Your task to perform on an android device: Search for "bose quietcomfort 35" on costco, select the first entry, and add it to the cart. Image 0: 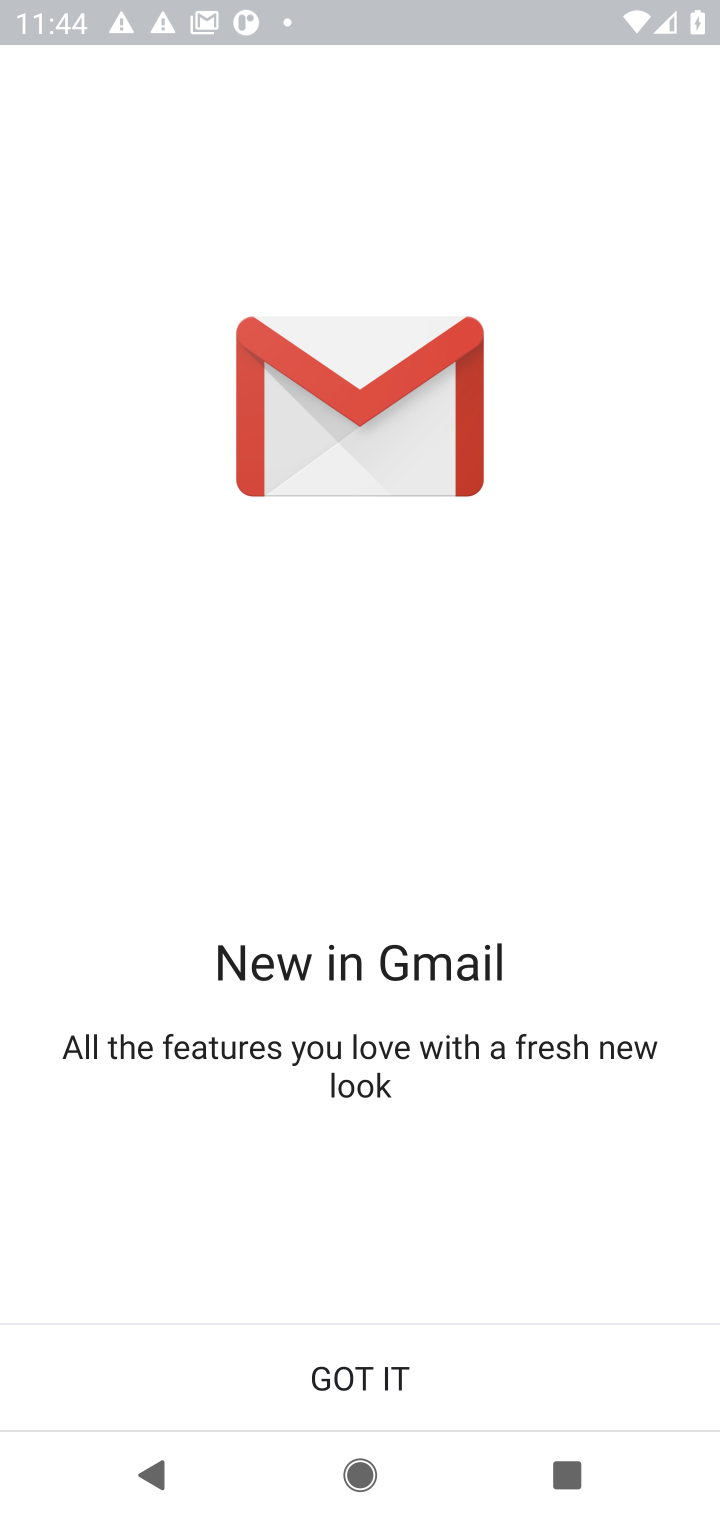
Step 0: press home button
Your task to perform on an android device: Search for "bose quietcomfort 35" on costco, select the first entry, and add it to the cart. Image 1: 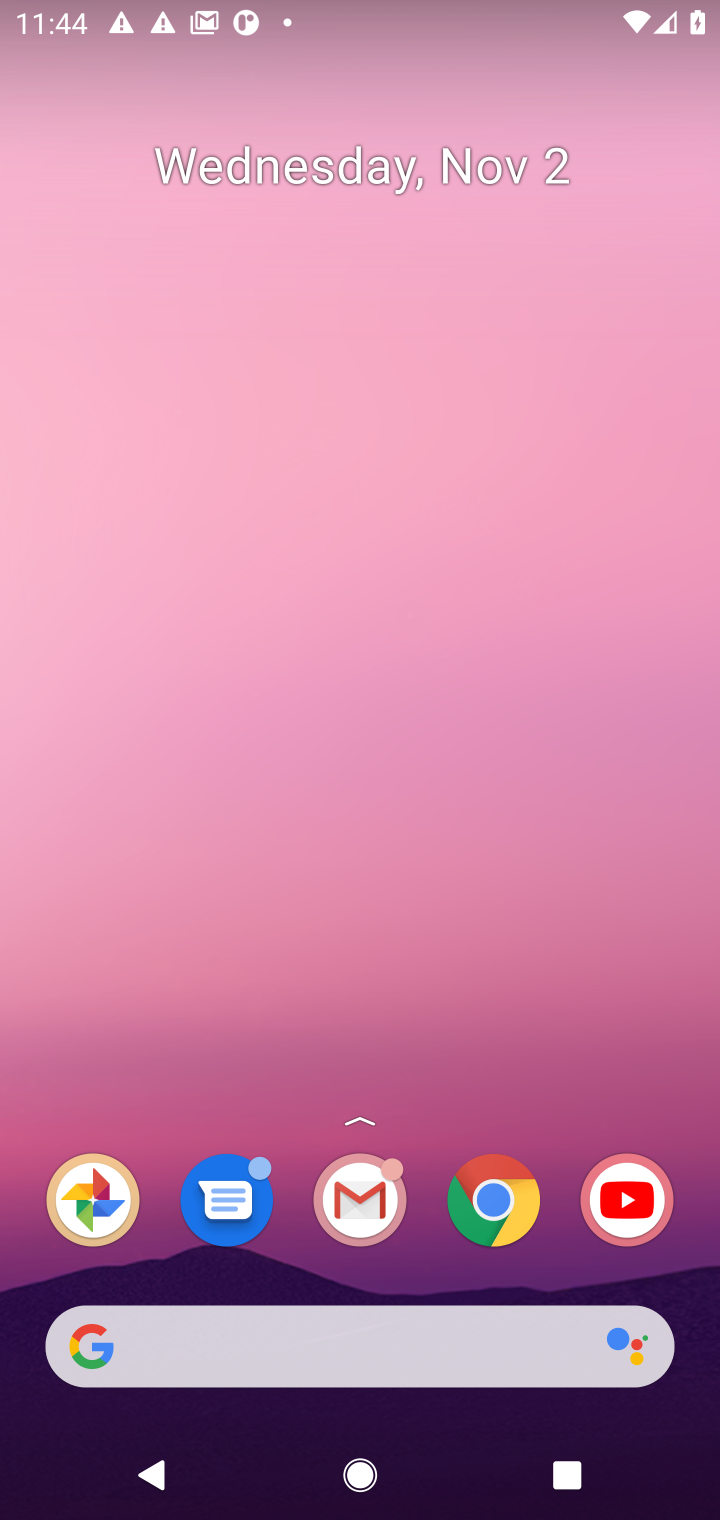
Step 1: click (494, 1194)
Your task to perform on an android device: Search for "bose quietcomfort 35" on costco, select the first entry, and add it to the cart. Image 2: 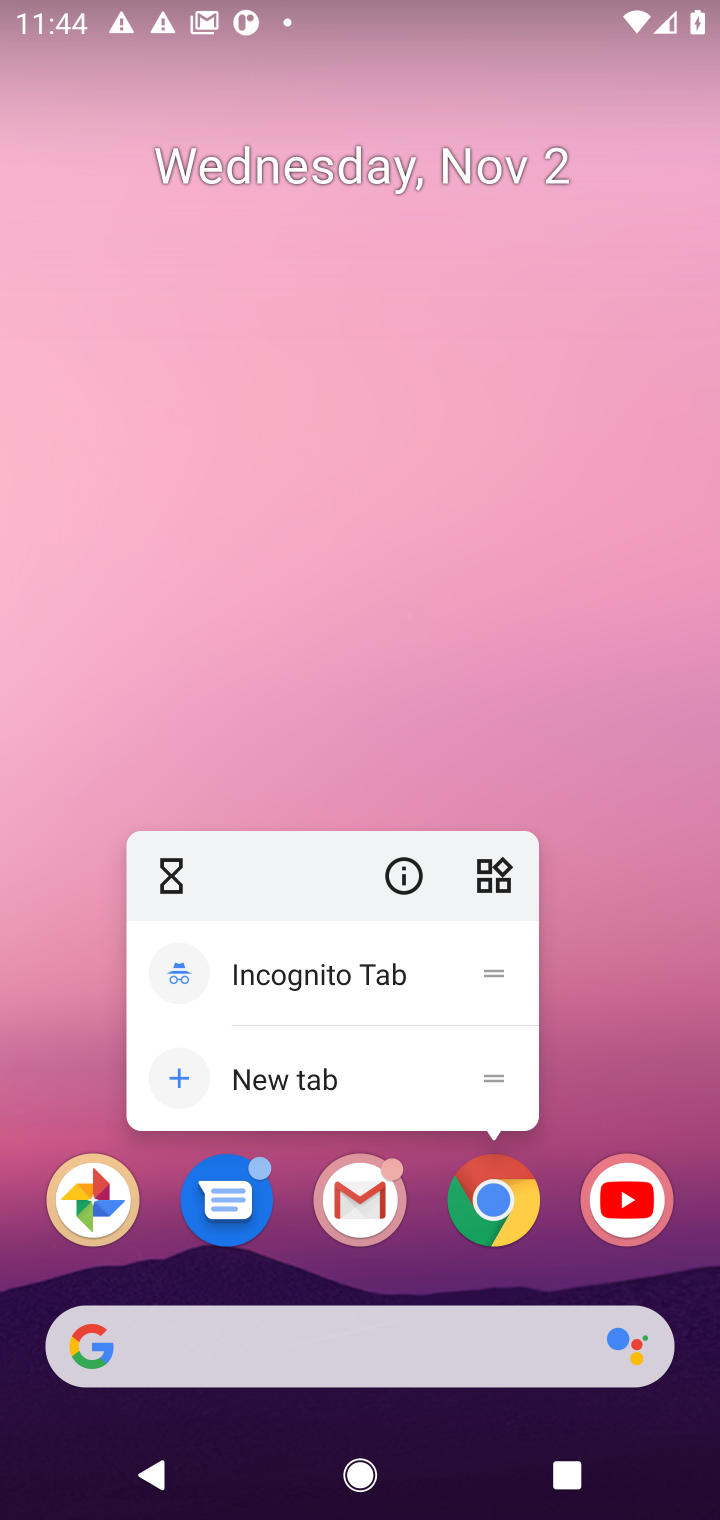
Step 2: click (494, 1194)
Your task to perform on an android device: Search for "bose quietcomfort 35" on costco, select the first entry, and add it to the cart. Image 3: 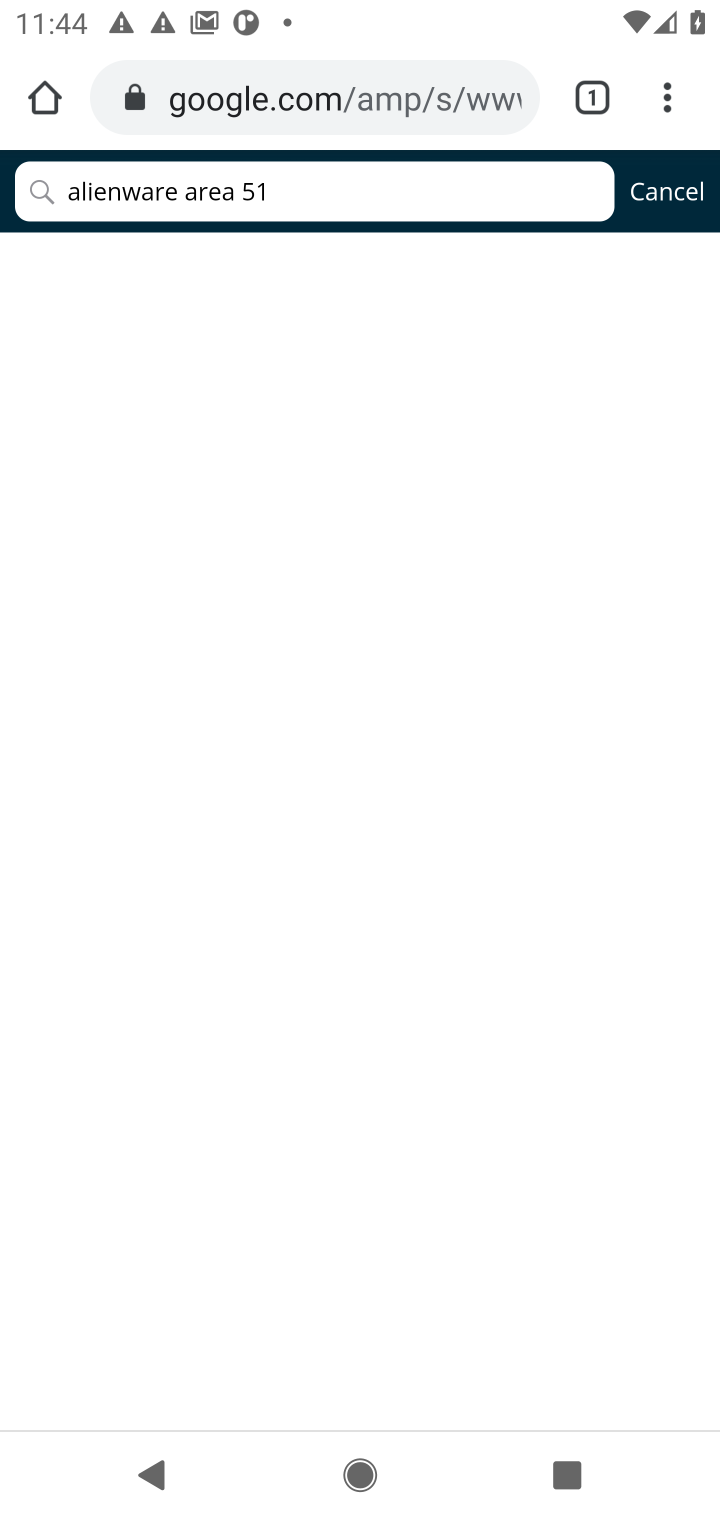
Step 3: click (403, 96)
Your task to perform on an android device: Search for "bose quietcomfort 35" on costco, select the first entry, and add it to the cart. Image 4: 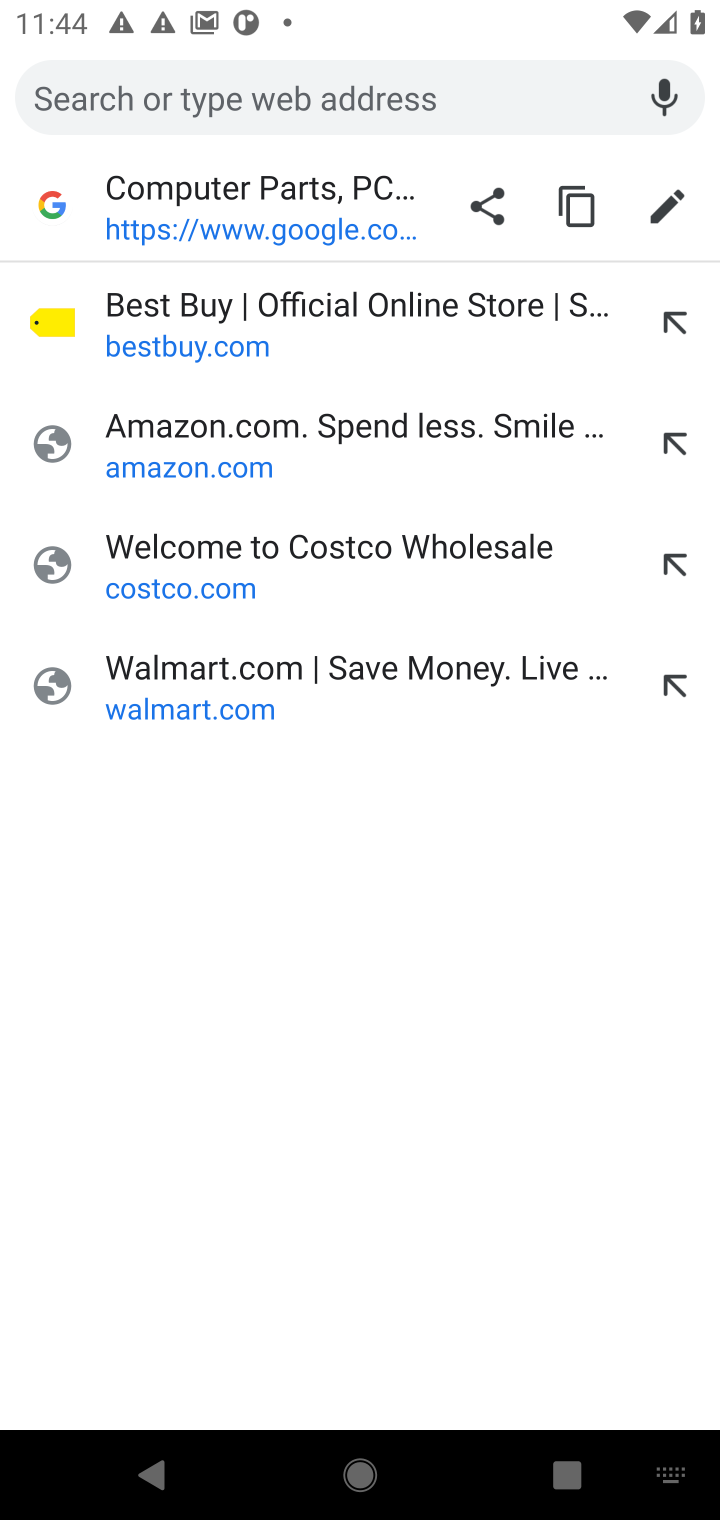
Step 4: type "costco"
Your task to perform on an android device: Search for "bose quietcomfort 35" on costco, select the first entry, and add it to the cart. Image 5: 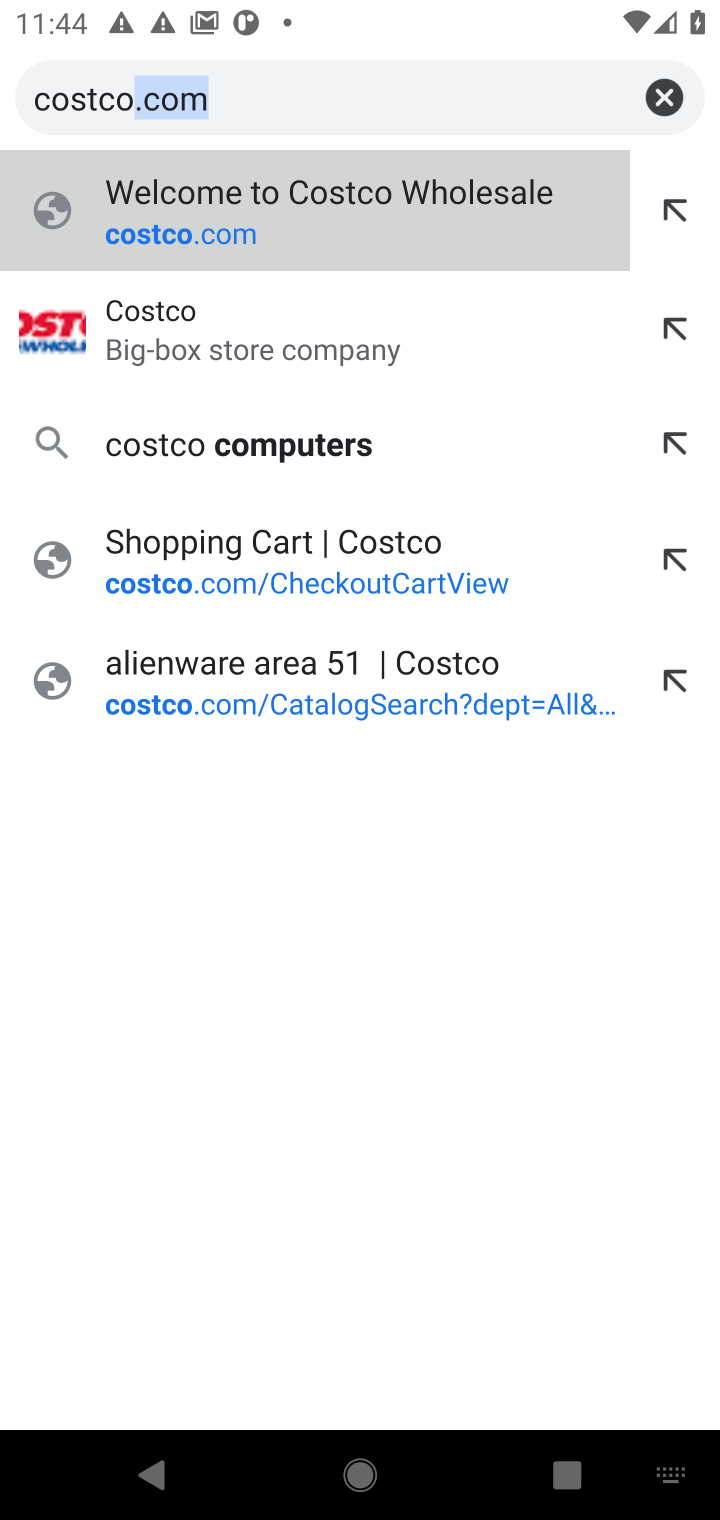
Step 5: press enter
Your task to perform on an android device: Search for "bose quietcomfort 35" on costco, select the first entry, and add it to the cart. Image 6: 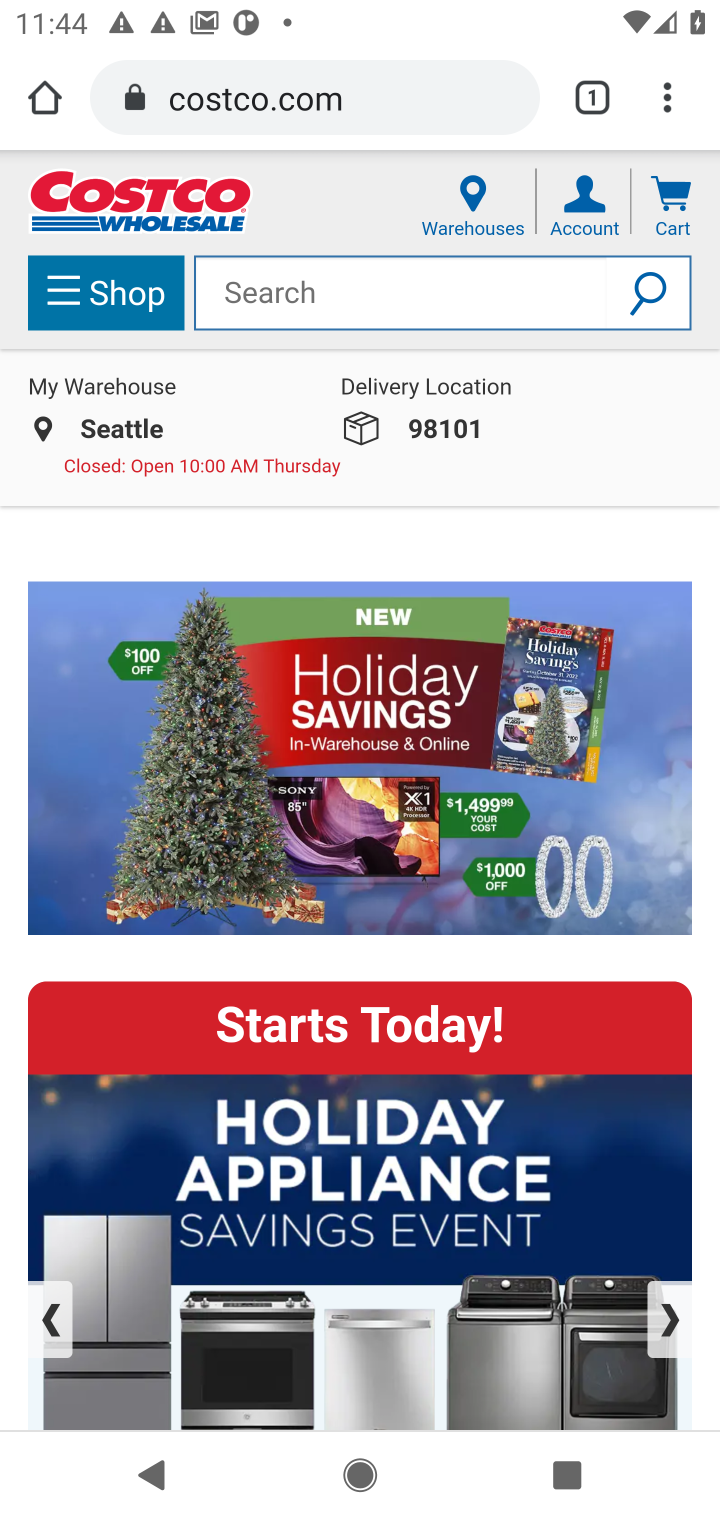
Step 6: click (482, 296)
Your task to perform on an android device: Search for "bose quietcomfort 35" on costco, select the first entry, and add it to the cart. Image 7: 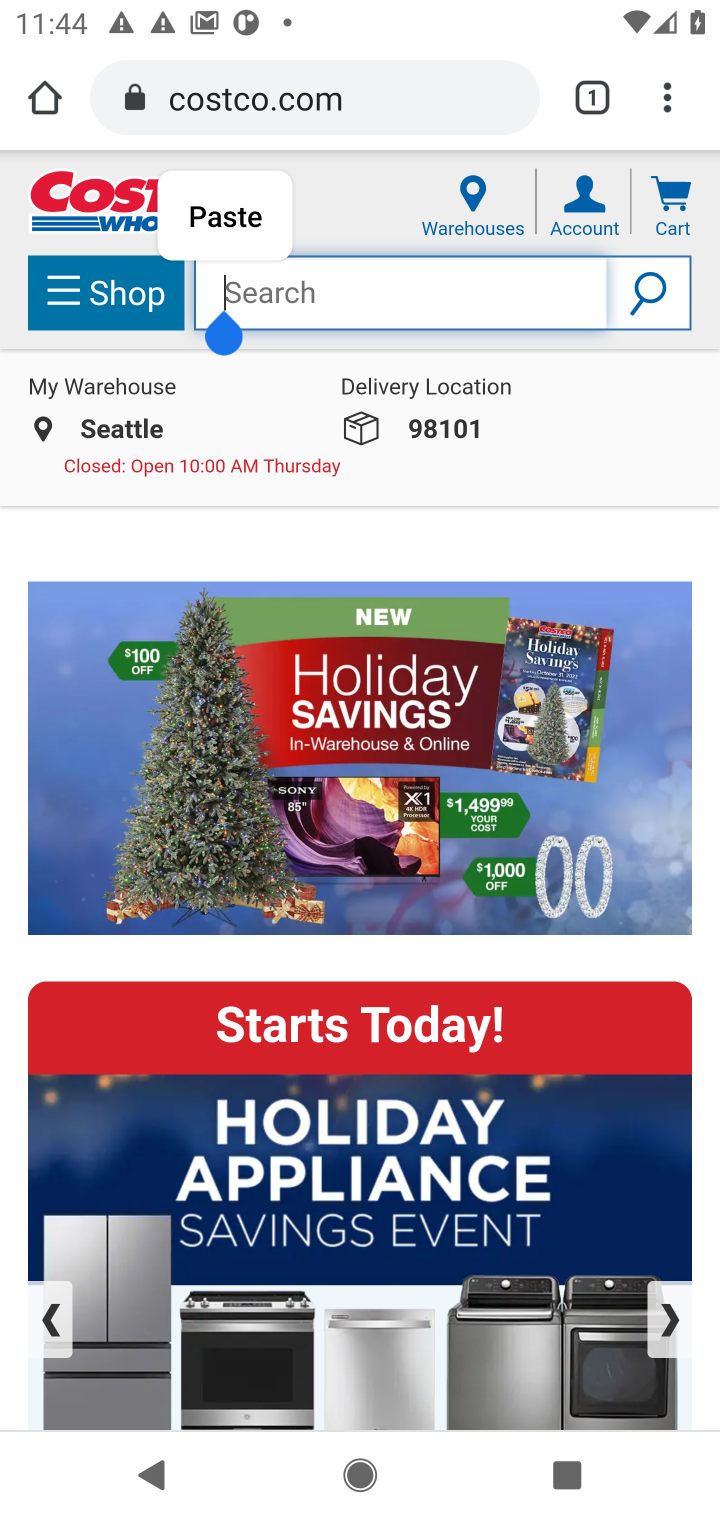
Step 7: type "bose quietcomfort 35"
Your task to perform on an android device: Search for "bose quietcomfort 35" on costco, select the first entry, and add it to the cart. Image 8: 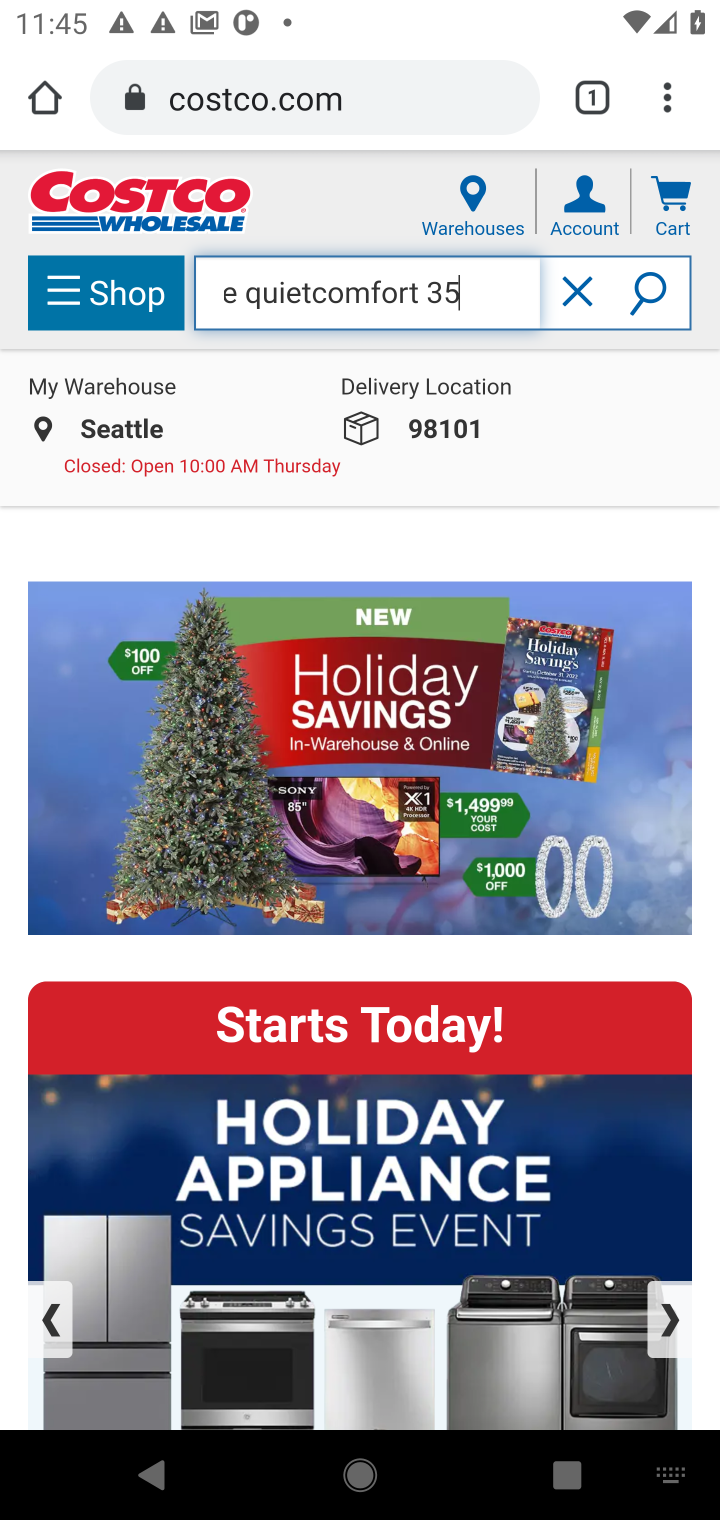
Step 8: press enter
Your task to perform on an android device: Search for "bose quietcomfort 35" on costco, select the first entry, and add it to the cart. Image 9: 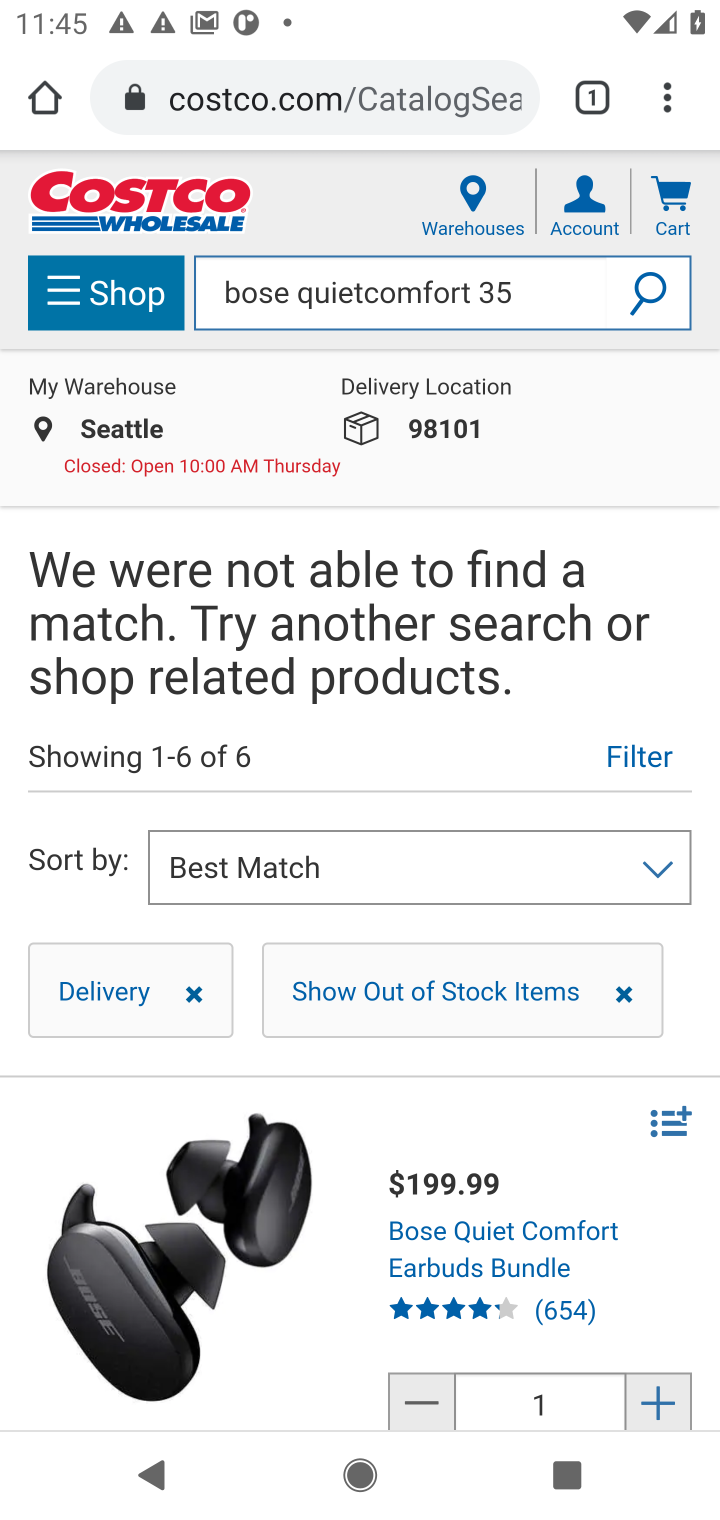
Step 9: task complete